Your task to perform on an android device: change the clock display to digital Image 0: 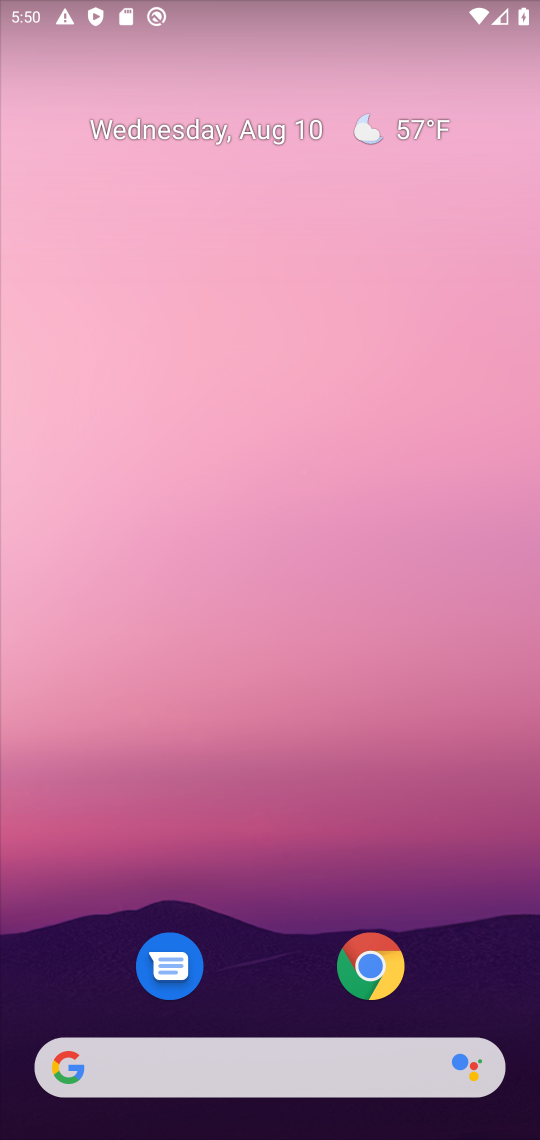
Step 0: drag from (295, 981) to (417, 60)
Your task to perform on an android device: change the clock display to digital Image 1: 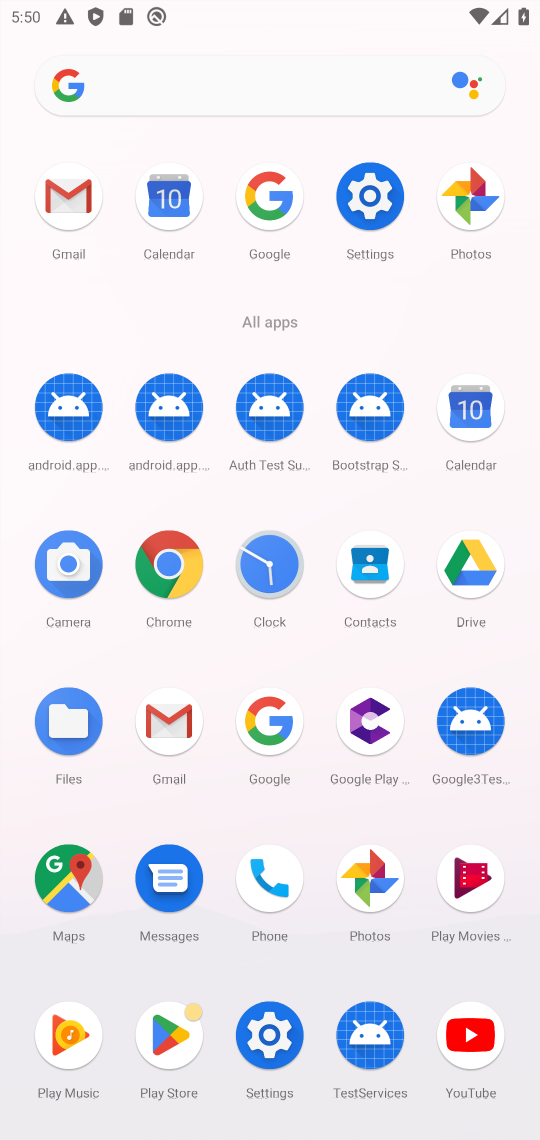
Step 1: click (270, 590)
Your task to perform on an android device: change the clock display to digital Image 2: 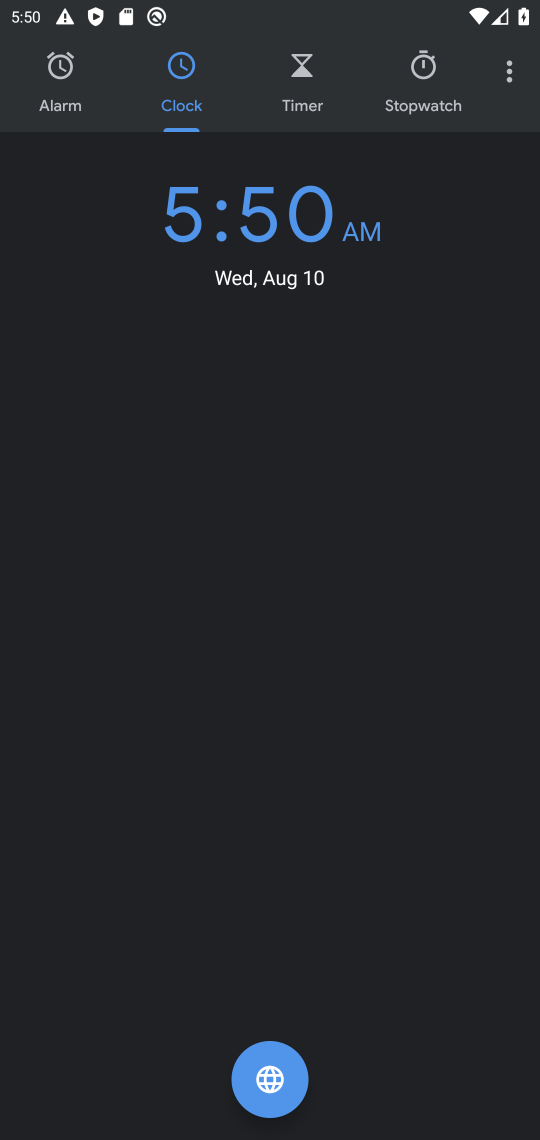
Step 2: click (515, 70)
Your task to perform on an android device: change the clock display to digital Image 3: 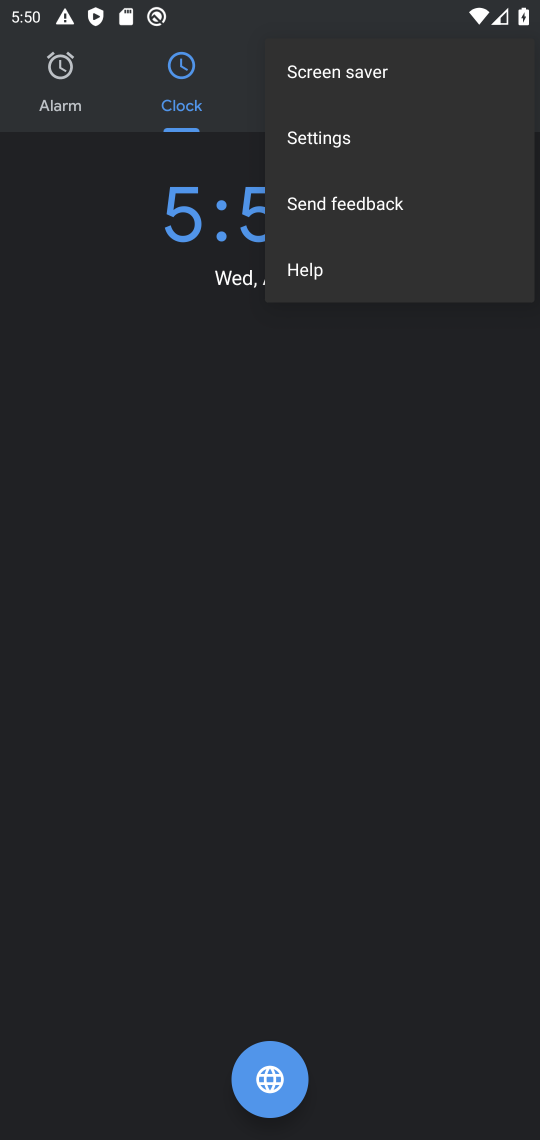
Step 3: click (315, 141)
Your task to perform on an android device: change the clock display to digital Image 4: 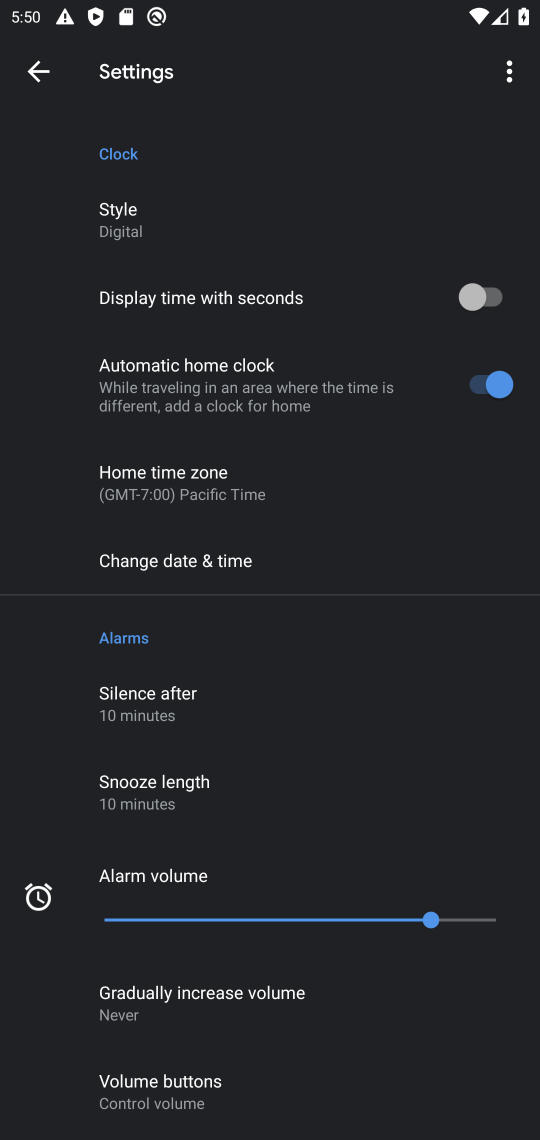
Step 4: click (123, 229)
Your task to perform on an android device: change the clock display to digital Image 5: 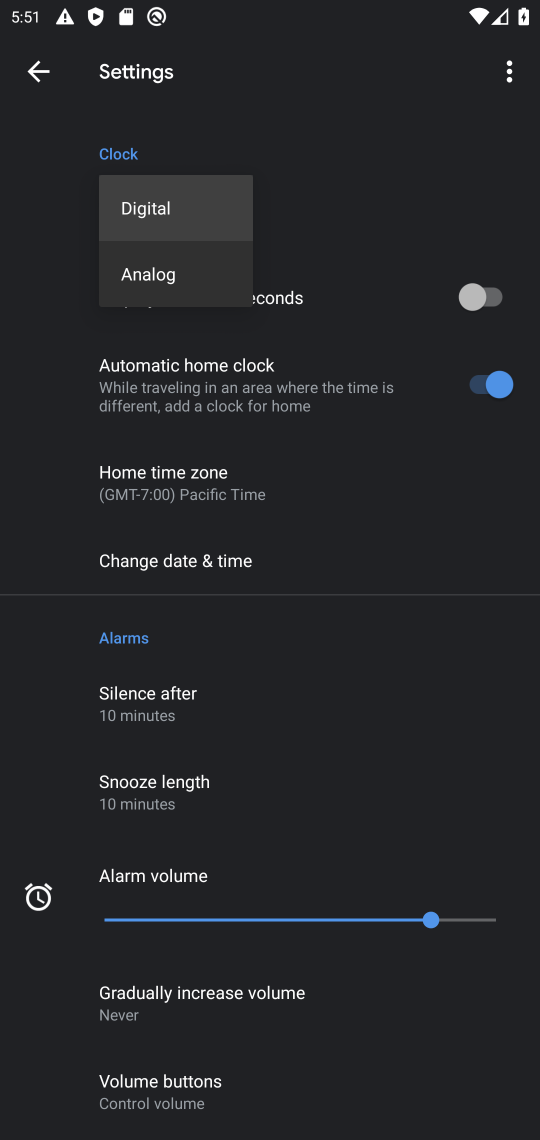
Step 5: task complete